Your task to perform on an android device: empty trash in the gmail app Image 0: 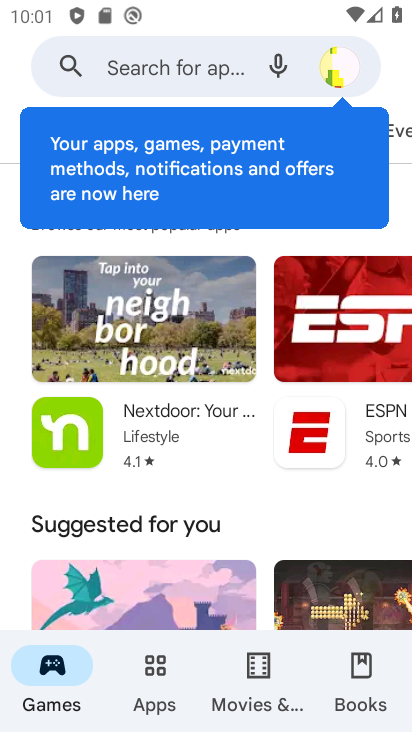
Step 0: press home button
Your task to perform on an android device: empty trash in the gmail app Image 1: 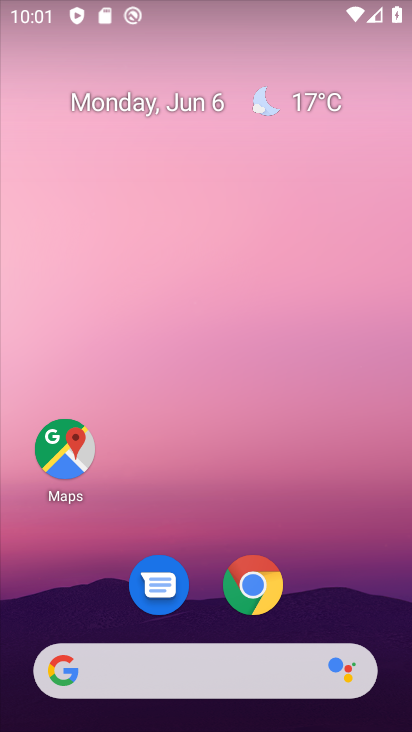
Step 1: drag from (224, 443) to (293, 14)
Your task to perform on an android device: empty trash in the gmail app Image 2: 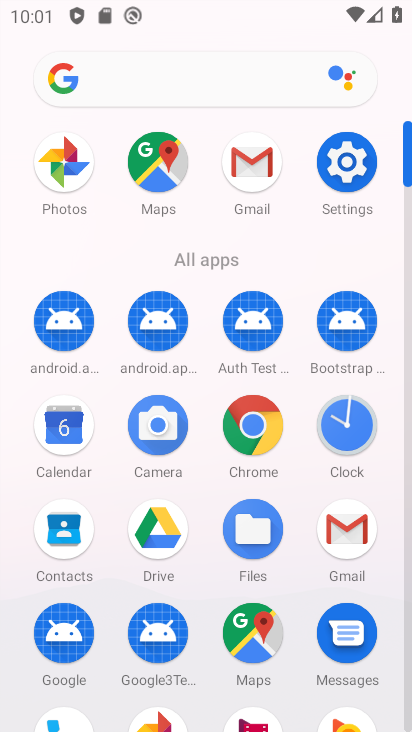
Step 2: click (258, 164)
Your task to perform on an android device: empty trash in the gmail app Image 3: 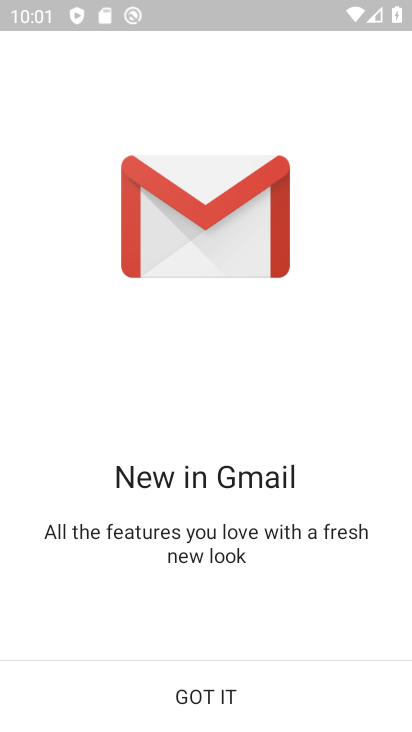
Step 3: click (257, 681)
Your task to perform on an android device: empty trash in the gmail app Image 4: 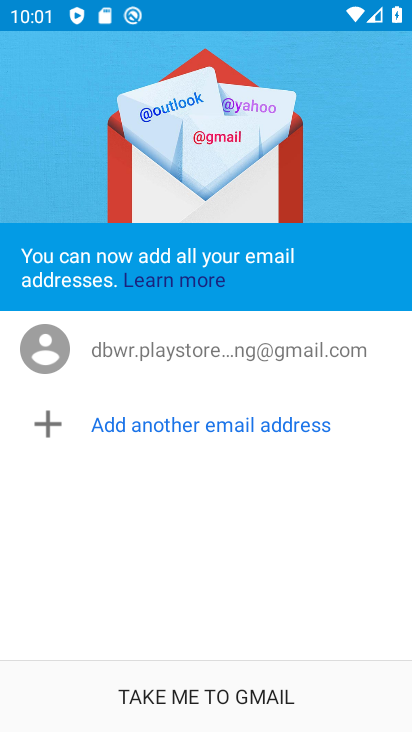
Step 4: click (257, 681)
Your task to perform on an android device: empty trash in the gmail app Image 5: 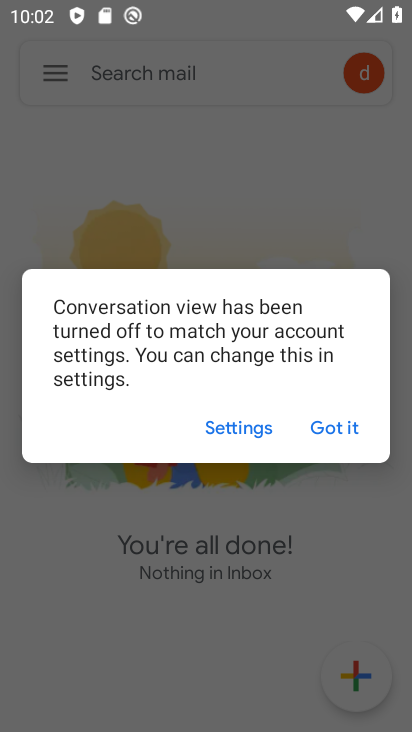
Step 5: click (331, 419)
Your task to perform on an android device: empty trash in the gmail app Image 6: 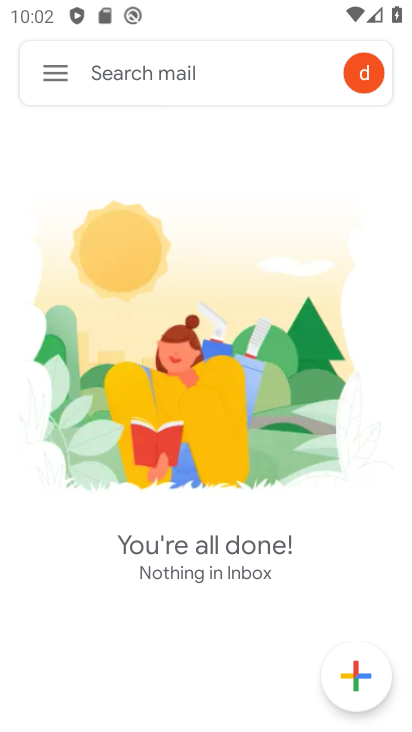
Step 6: click (61, 74)
Your task to perform on an android device: empty trash in the gmail app Image 7: 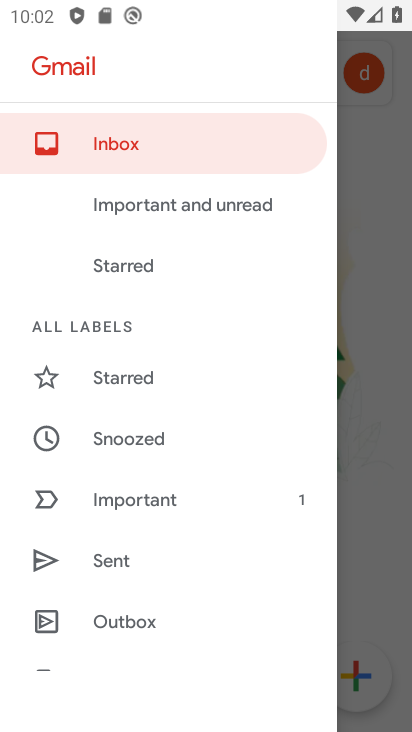
Step 7: drag from (175, 525) to (203, 203)
Your task to perform on an android device: empty trash in the gmail app Image 8: 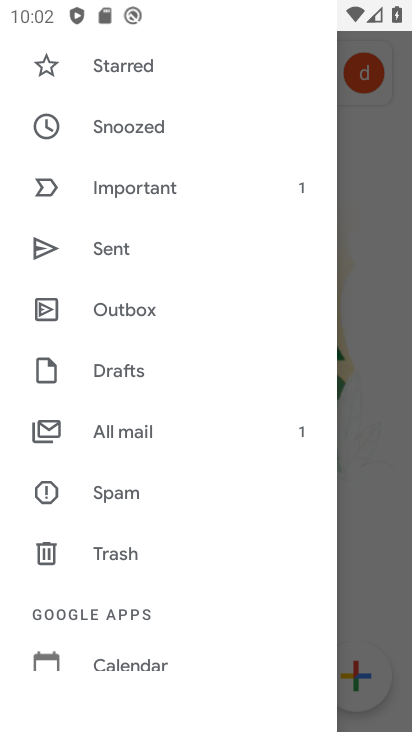
Step 8: click (164, 548)
Your task to perform on an android device: empty trash in the gmail app Image 9: 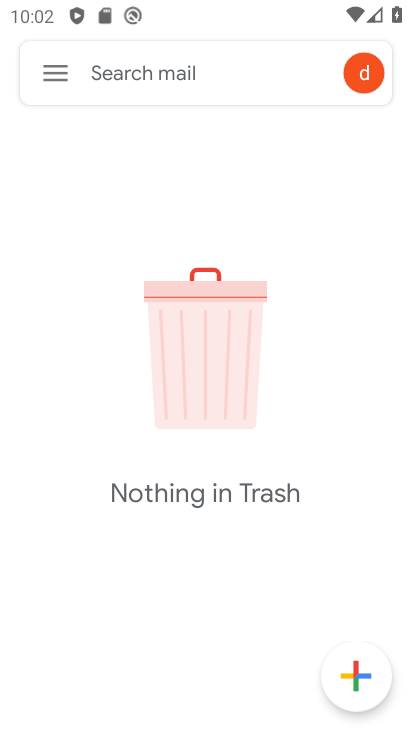
Step 9: task complete